Your task to perform on an android device: Is it going to rain today? Image 0: 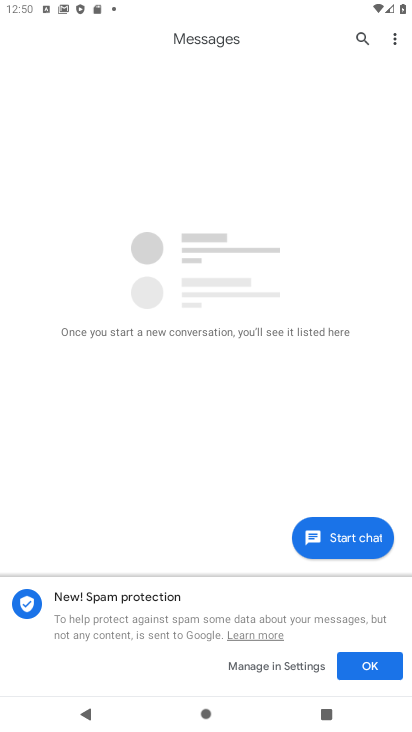
Step 0: press home button
Your task to perform on an android device: Is it going to rain today? Image 1: 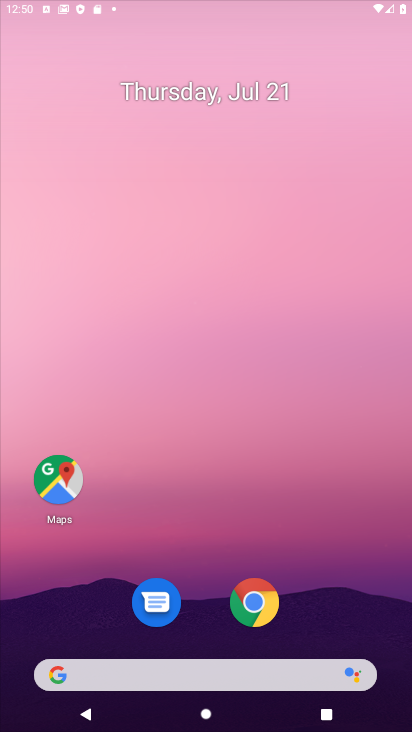
Step 1: drag from (393, 672) to (228, 20)
Your task to perform on an android device: Is it going to rain today? Image 2: 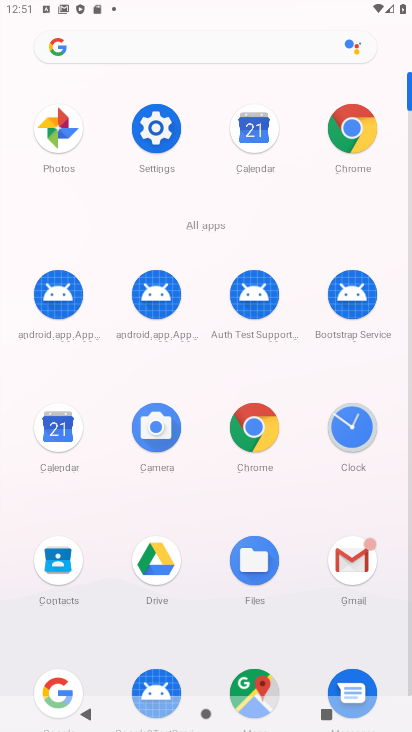
Step 2: click (62, 678)
Your task to perform on an android device: Is it going to rain today? Image 3: 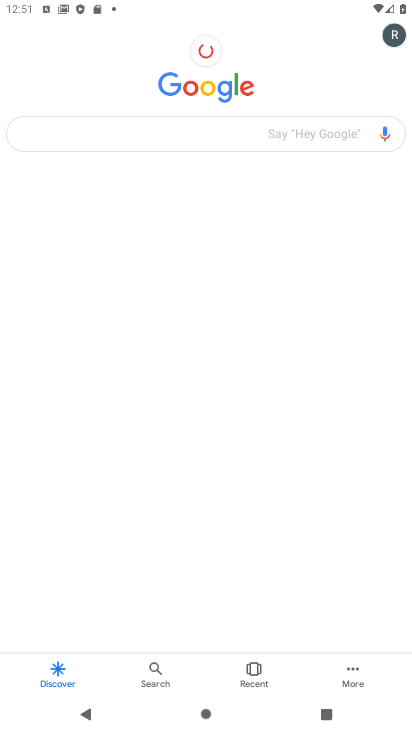
Step 3: click (170, 132)
Your task to perform on an android device: Is it going to rain today? Image 4: 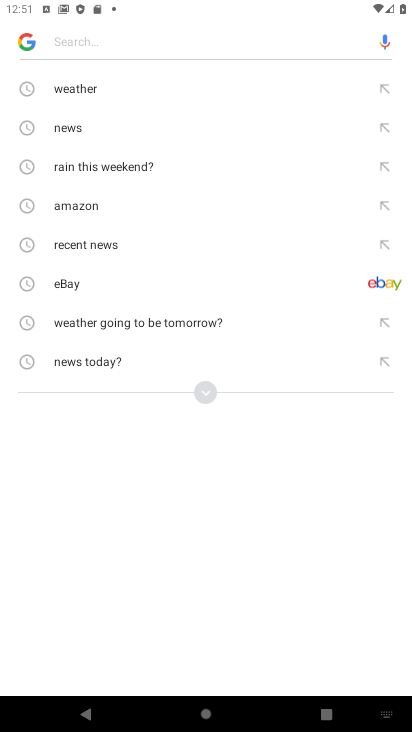
Step 4: type "Is it going to rain today?"
Your task to perform on an android device: Is it going to rain today? Image 5: 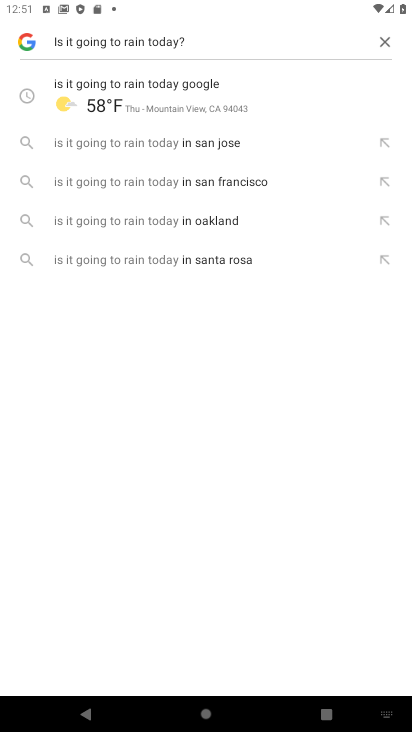
Step 5: click (163, 92)
Your task to perform on an android device: Is it going to rain today? Image 6: 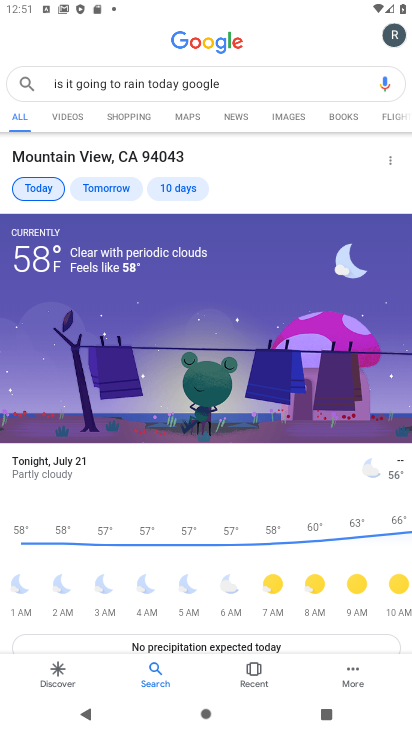
Step 6: task complete